Your task to perform on an android device: Search for Italian restaurants on Maps Image 0: 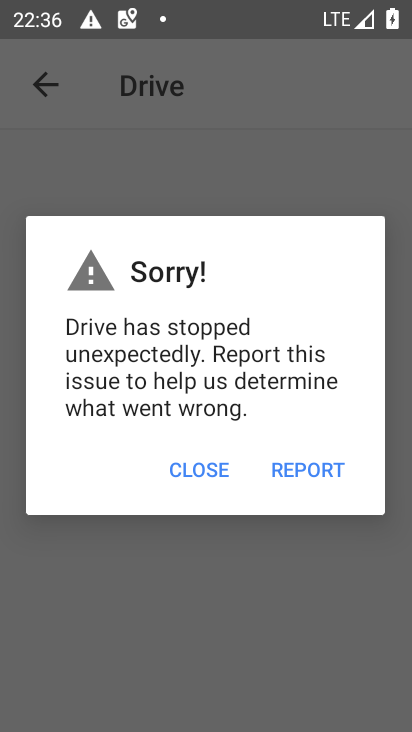
Step 0: press back button
Your task to perform on an android device: Search for Italian restaurants on Maps Image 1: 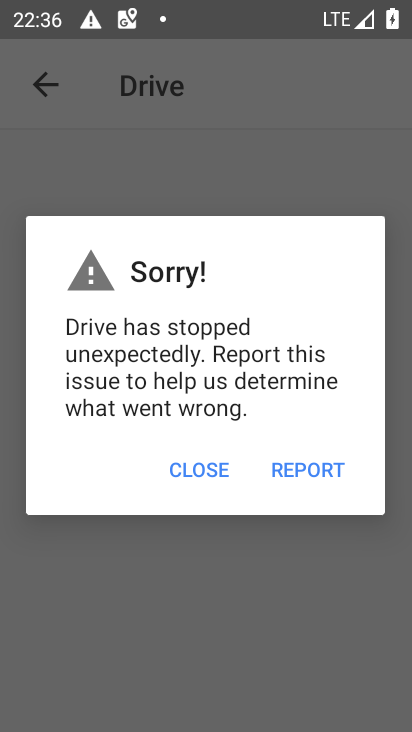
Step 1: press home button
Your task to perform on an android device: Search for Italian restaurants on Maps Image 2: 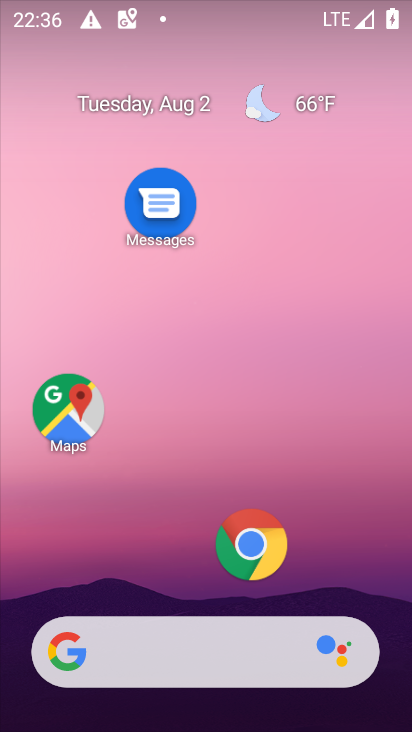
Step 2: click (90, 437)
Your task to perform on an android device: Search for Italian restaurants on Maps Image 3: 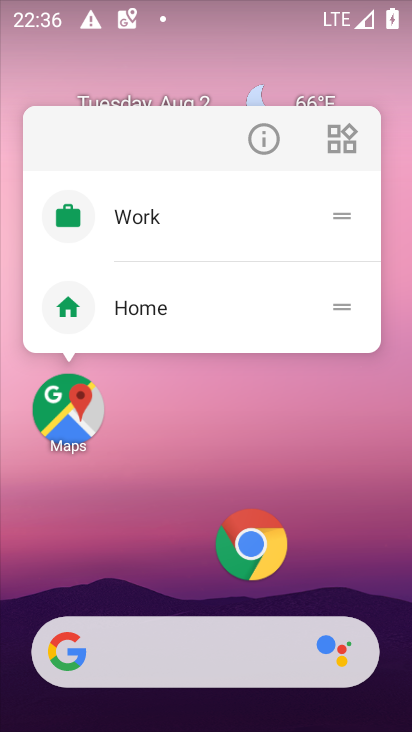
Step 3: drag from (90, 437) to (52, 437)
Your task to perform on an android device: Search for Italian restaurants on Maps Image 4: 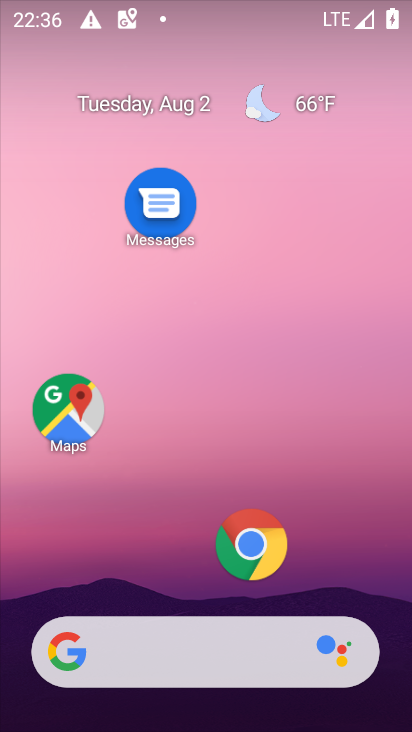
Step 4: click (86, 408)
Your task to perform on an android device: Search for Italian restaurants on Maps Image 5: 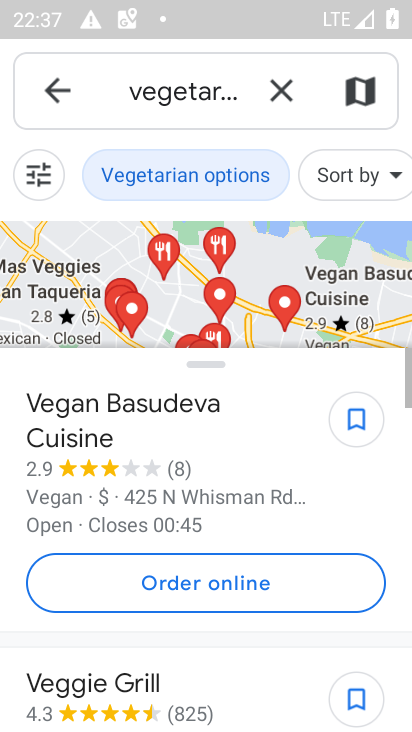
Step 5: click (281, 98)
Your task to perform on an android device: Search for Italian restaurants on Maps Image 6: 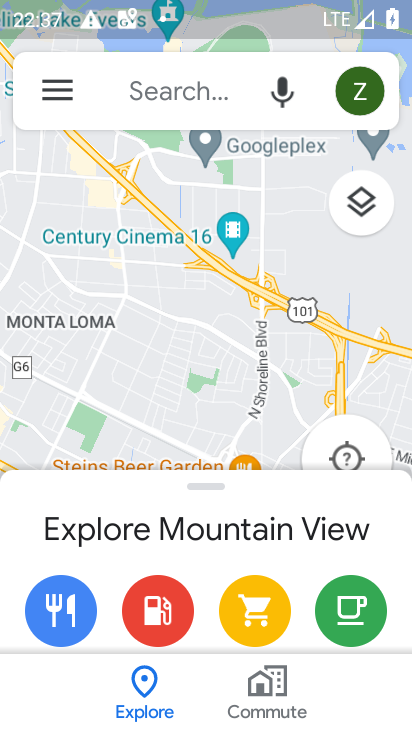
Step 6: click (174, 107)
Your task to perform on an android device: Search for Italian restaurants on Maps Image 7: 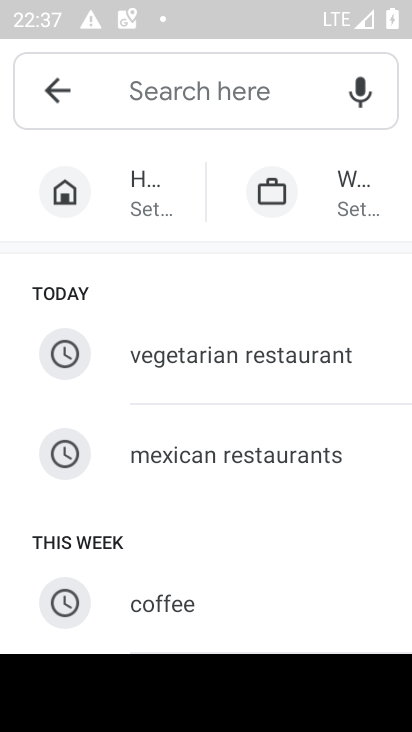
Step 7: type "Italian restaurants"
Your task to perform on an android device: Search for Italian restaurants on Maps Image 8: 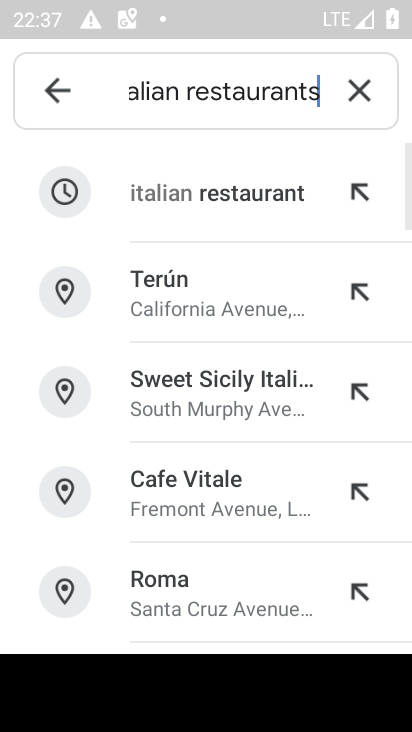
Step 8: click (199, 191)
Your task to perform on an android device: Search for Italian restaurants on Maps Image 9: 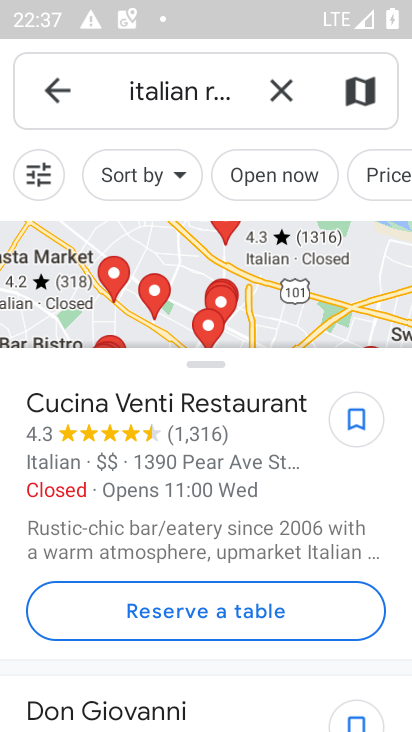
Step 9: task complete